Your task to perform on an android device: Go to CNN.com Image 0: 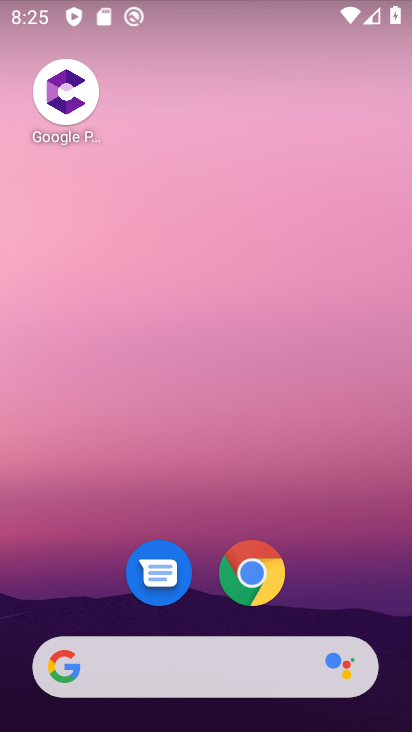
Step 0: drag from (347, 528) to (259, 17)
Your task to perform on an android device: Go to CNN.com Image 1: 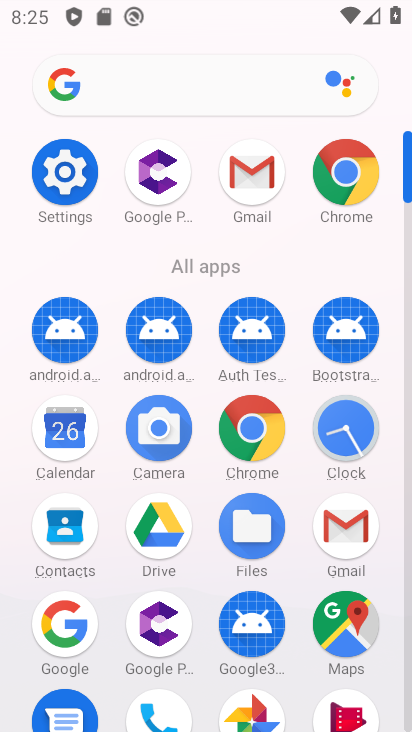
Step 1: click (349, 178)
Your task to perform on an android device: Go to CNN.com Image 2: 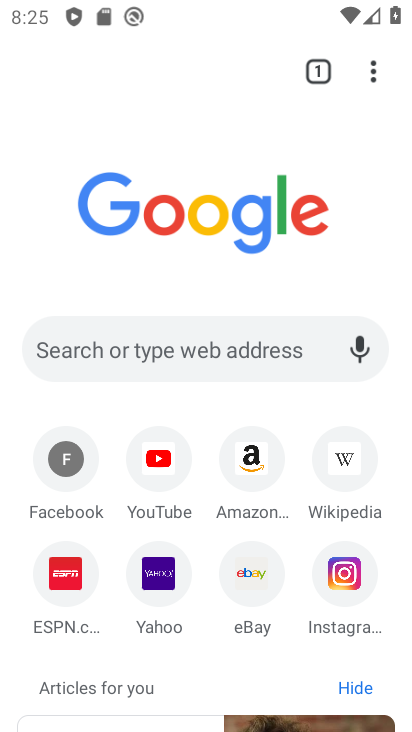
Step 2: click (214, 346)
Your task to perform on an android device: Go to CNN.com Image 3: 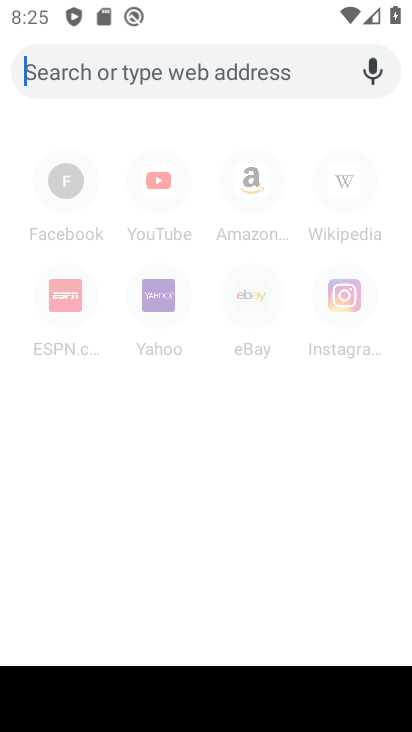
Step 3: type "CNN.com"
Your task to perform on an android device: Go to CNN.com Image 4: 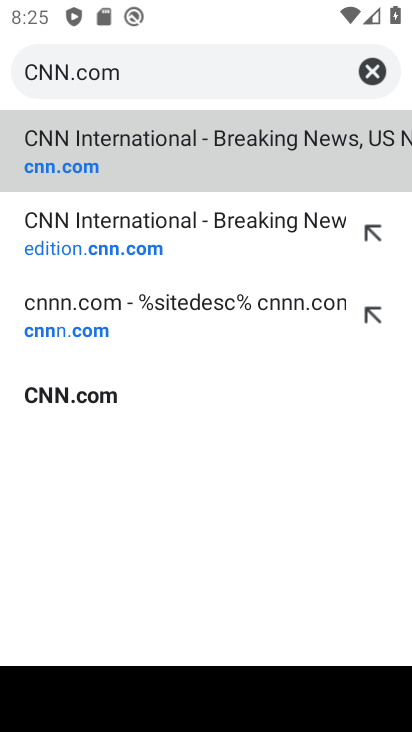
Step 4: click (163, 150)
Your task to perform on an android device: Go to CNN.com Image 5: 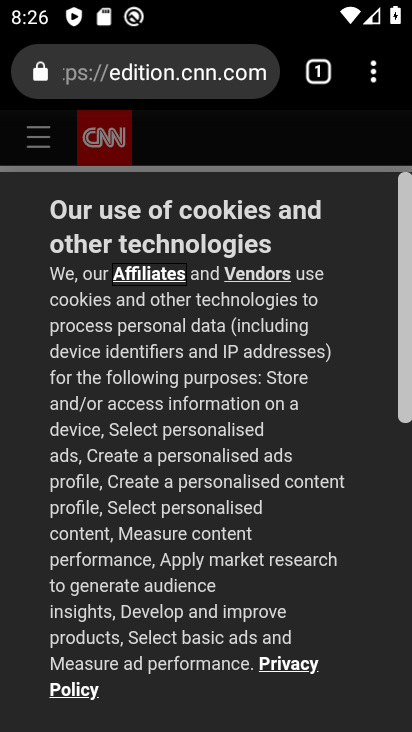
Step 5: task complete